Your task to perform on an android device: Open Google Chrome and click the shortcut for Amazon.com Image 0: 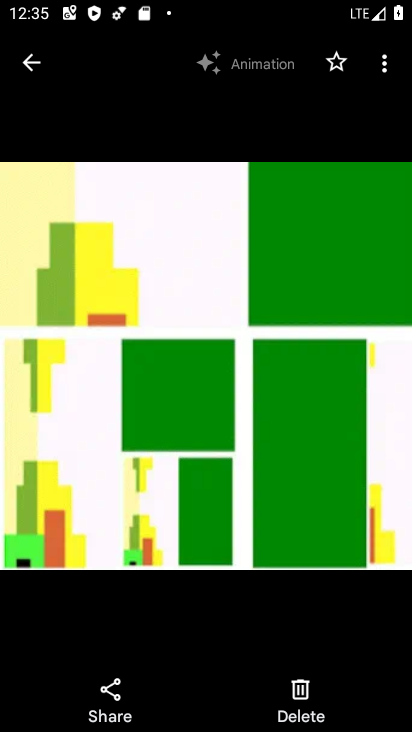
Step 0: press home button
Your task to perform on an android device: Open Google Chrome and click the shortcut for Amazon.com Image 1: 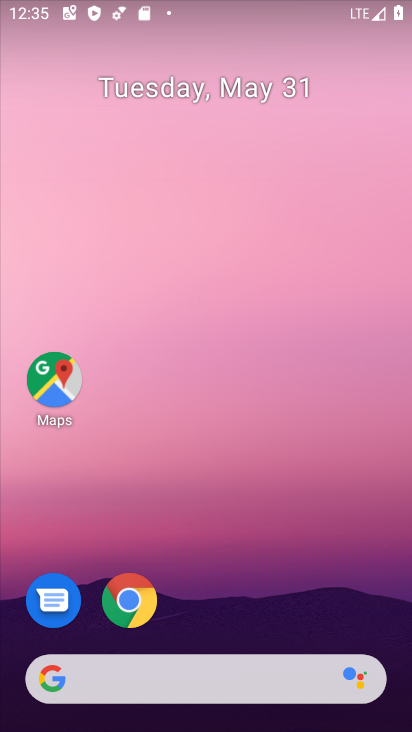
Step 1: click (125, 600)
Your task to perform on an android device: Open Google Chrome and click the shortcut for Amazon.com Image 2: 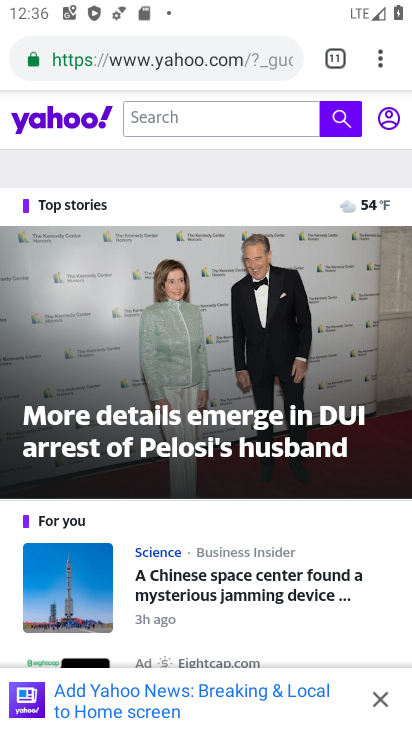
Step 2: click (380, 63)
Your task to perform on an android device: Open Google Chrome and click the shortcut for Amazon.com Image 3: 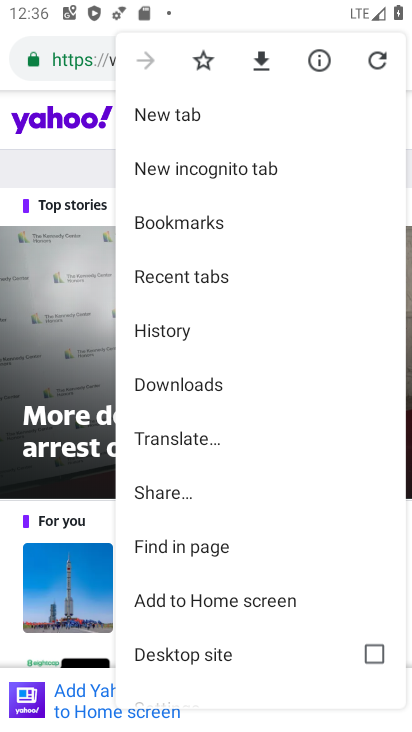
Step 3: click (145, 112)
Your task to perform on an android device: Open Google Chrome and click the shortcut for Amazon.com Image 4: 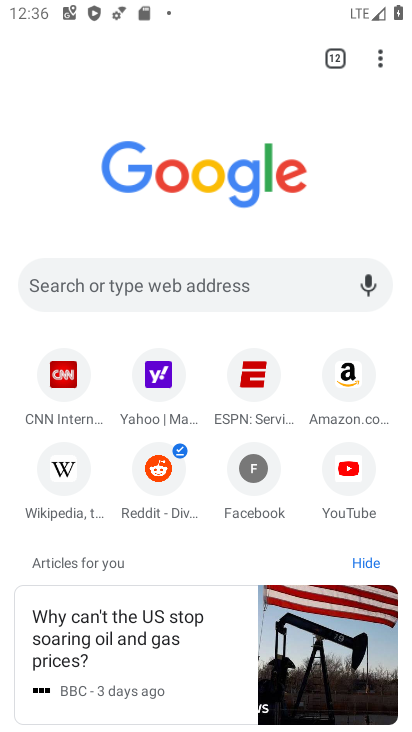
Step 4: click (346, 385)
Your task to perform on an android device: Open Google Chrome and click the shortcut for Amazon.com Image 5: 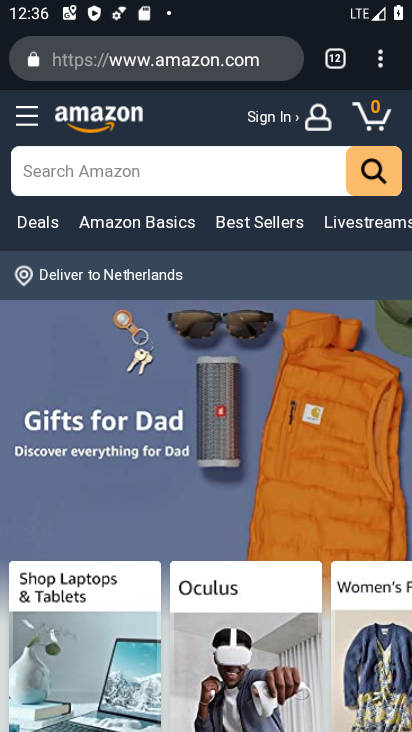
Step 5: task complete